Your task to perform on an android device: Clear the cart on ebay. Search for "usb-c to usb-b" on ebay, select the first entry, add it to the cart, then select checkout. Image 0: 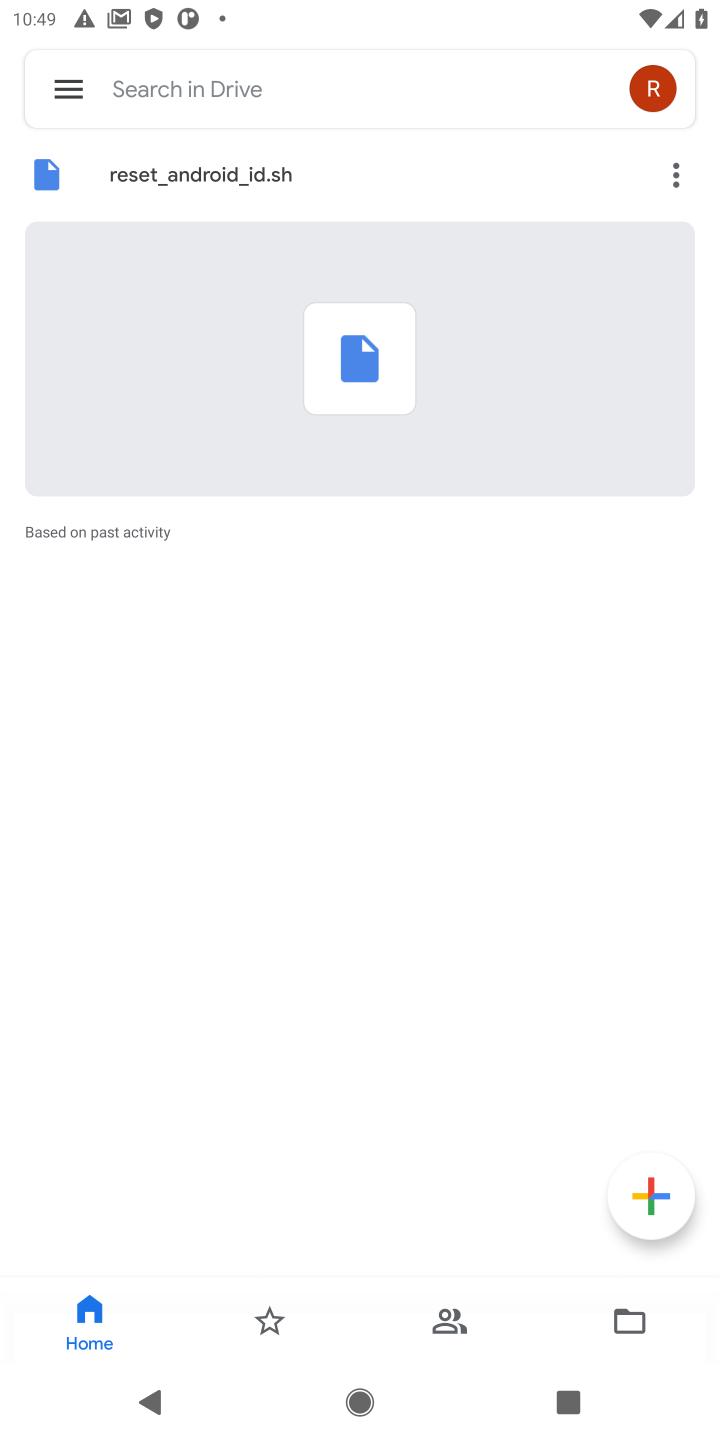
Step 0: press home button
Your task to perform on an android device: Clear the cart on ebay. Search for "usb-c to usb-b" on ebay, select the first entry, add it to the cart, then select checkout. Image 1: 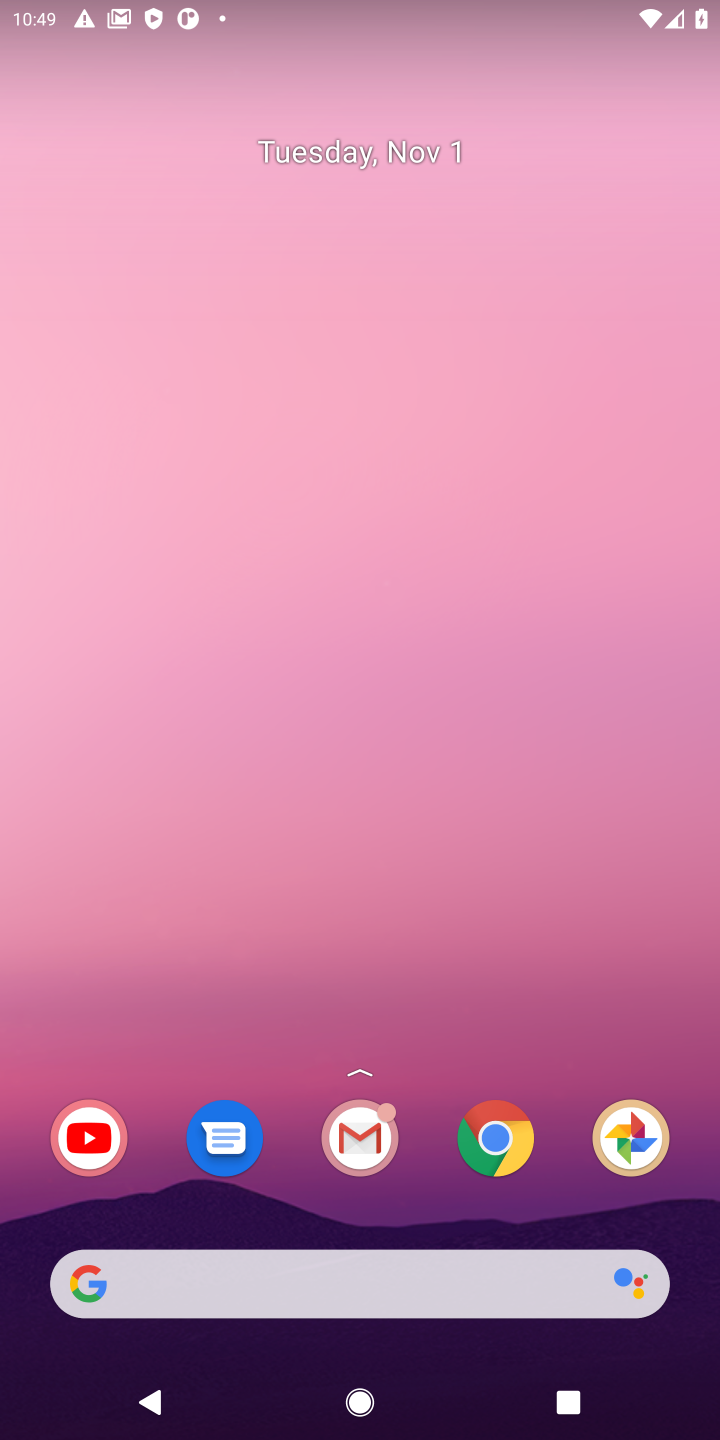
Step 1: click (487, 1131)
Your task to perform on an android device: Clear the cart on ebay. Search for "usb-c to usb-b" on ebay, select the first entry, add it to the cart, then select checkout. Image 2: 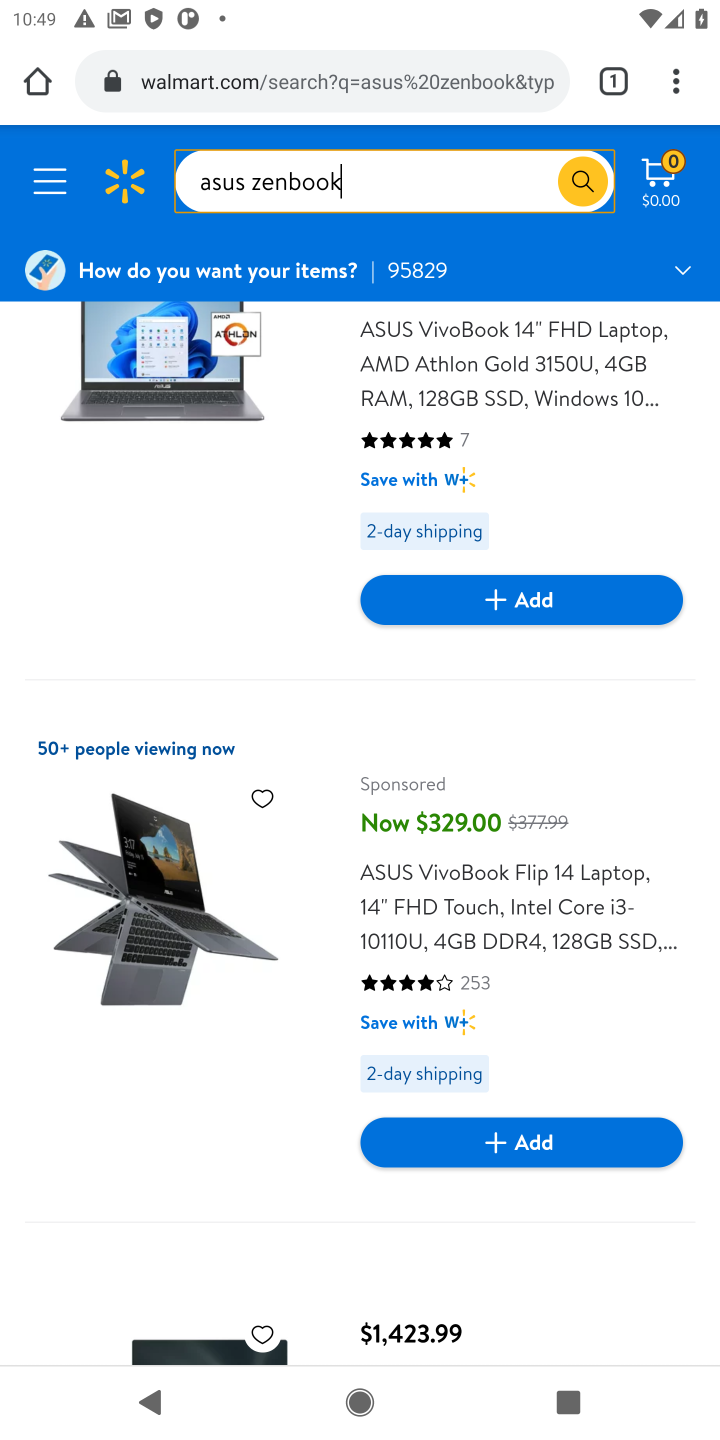
Step 2: click (336, 84)
Your task to perform on an android device: Clear the cart on ebay. Search for "usb-c to usb-b" on ebay, select the first entry, add it to the cart, then select checkout. Image 3: 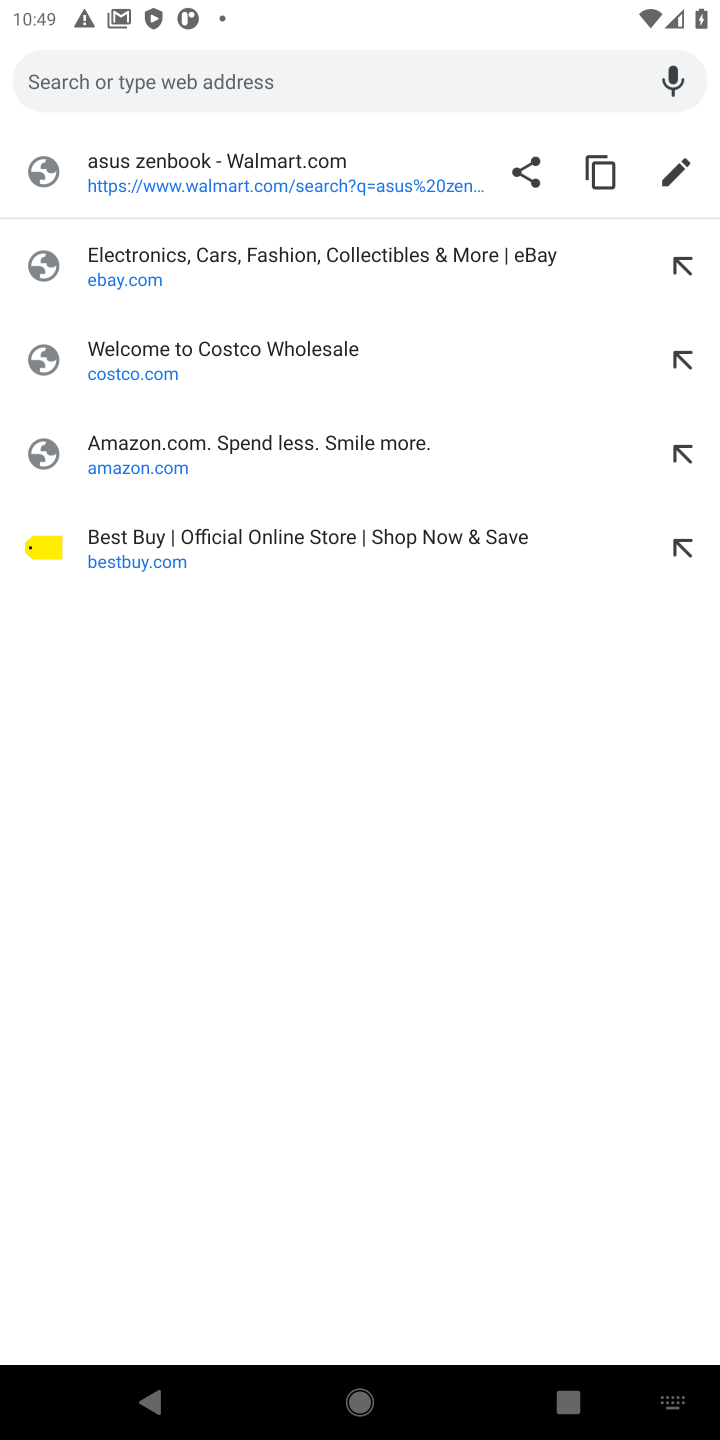
Step 3: click (135, 270)
Your task to perform on an android device: Clear the cart on ebay. Search for "usb-c to usb-b" on ebay, select the first entry, add it to the cart, then select checkout. Image 4: 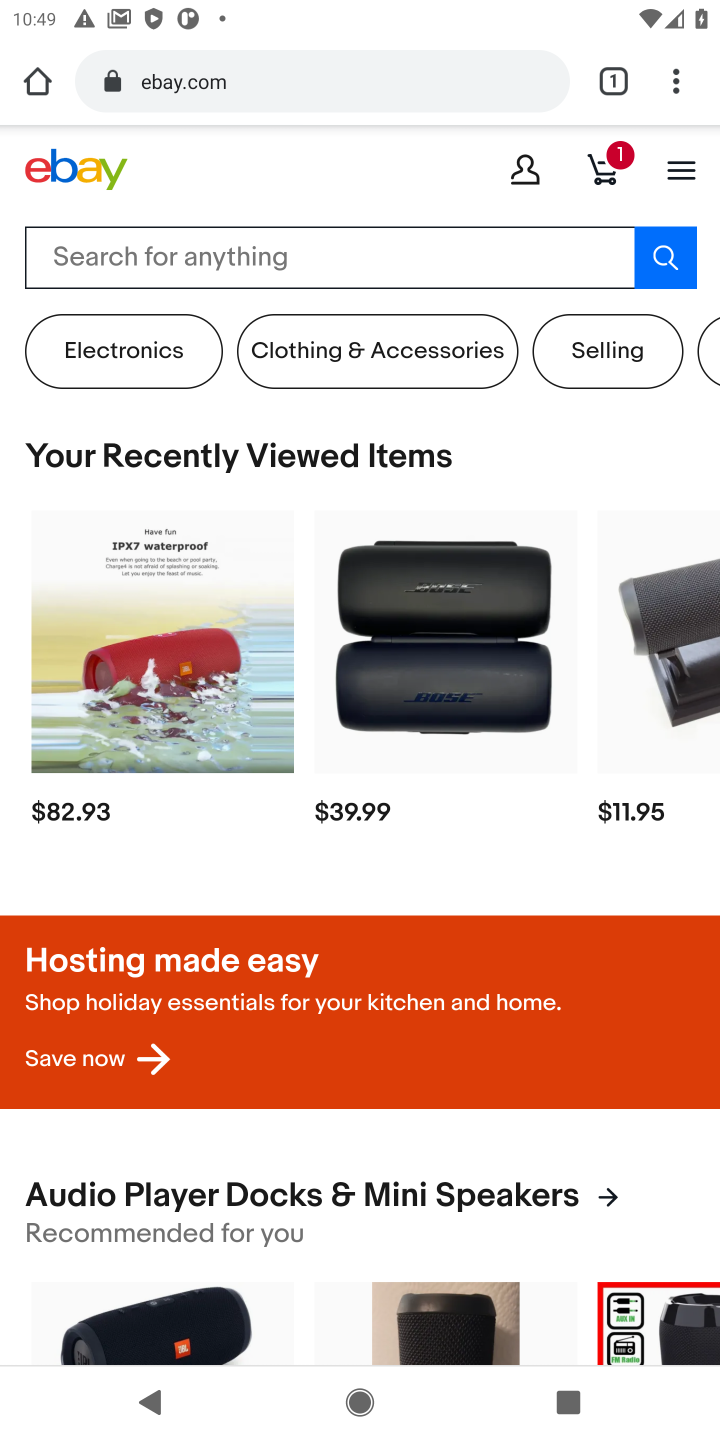
Step 4: click (605, 169)
Your task to perform on an android device: Clear the cart on ebay. Search for "usb-c to usb-b" on ebay, select the first entry, add it to the cart, then select checkout. Image 5: 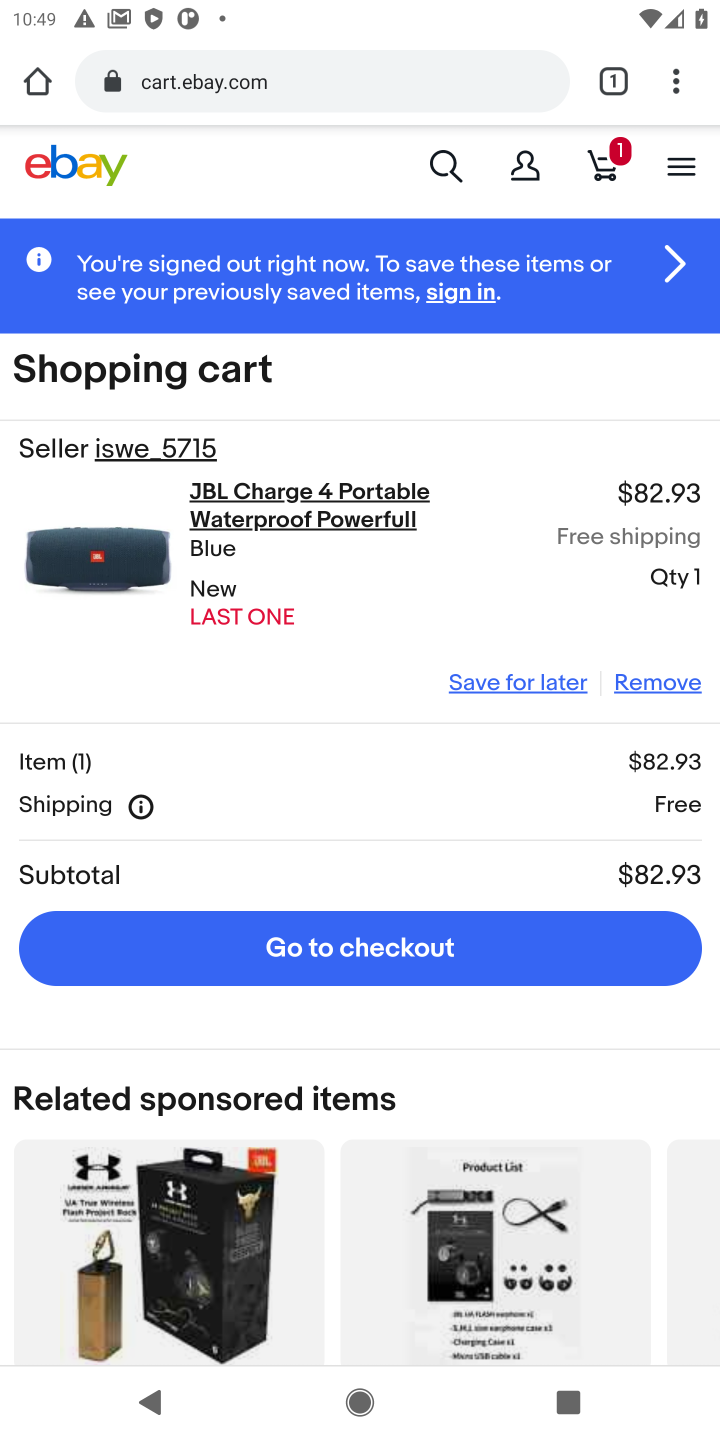
Step 5: click (694, 691)
Your task to perform on an android device: Clear the cart on ebay. Search for "usb-c to usb-b" on ebay, select the first entry, add it to the cart, then select checkout. Image 6: 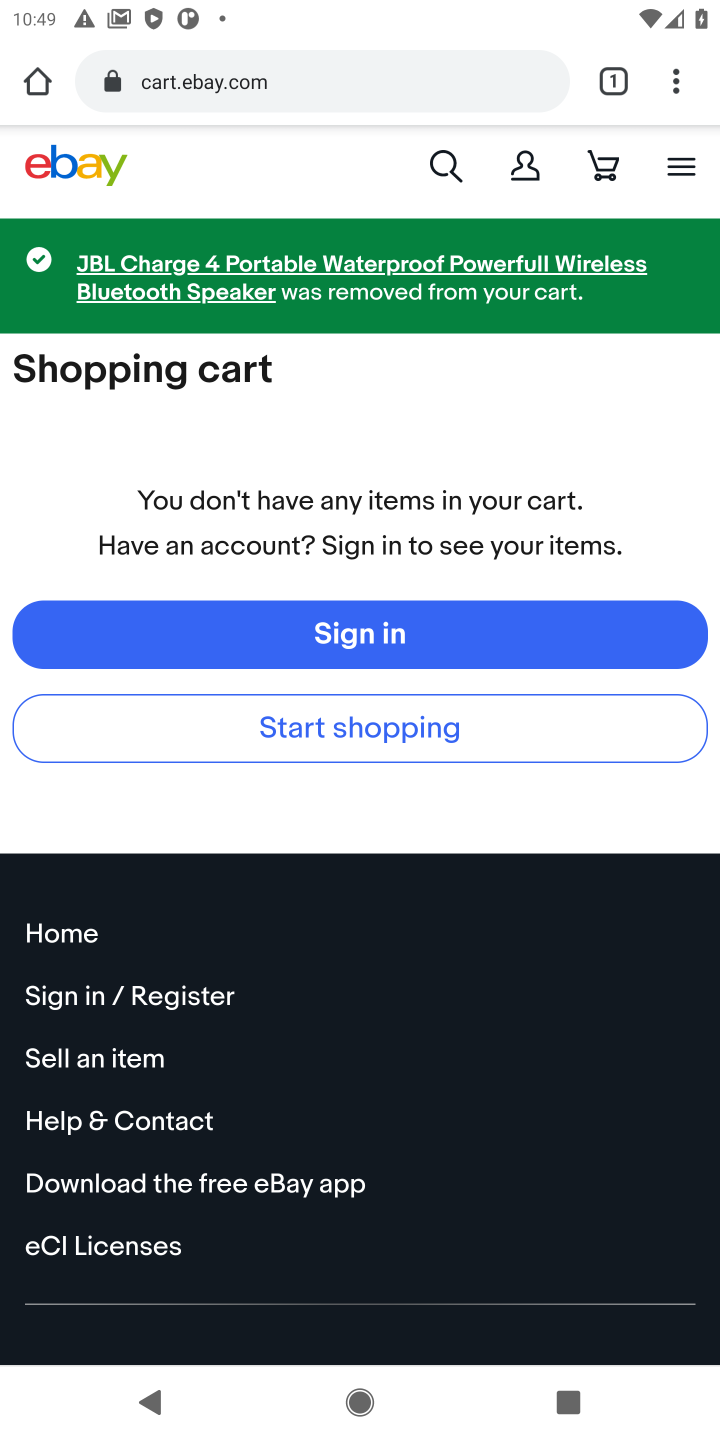
Step 6: click (451, 171)
Your task to perform on an android device: Clear the cart on ebay. Search for "usb-c to usb-b" on ebay, select the first entry, add it to the cart, then select checkout. Image 7: 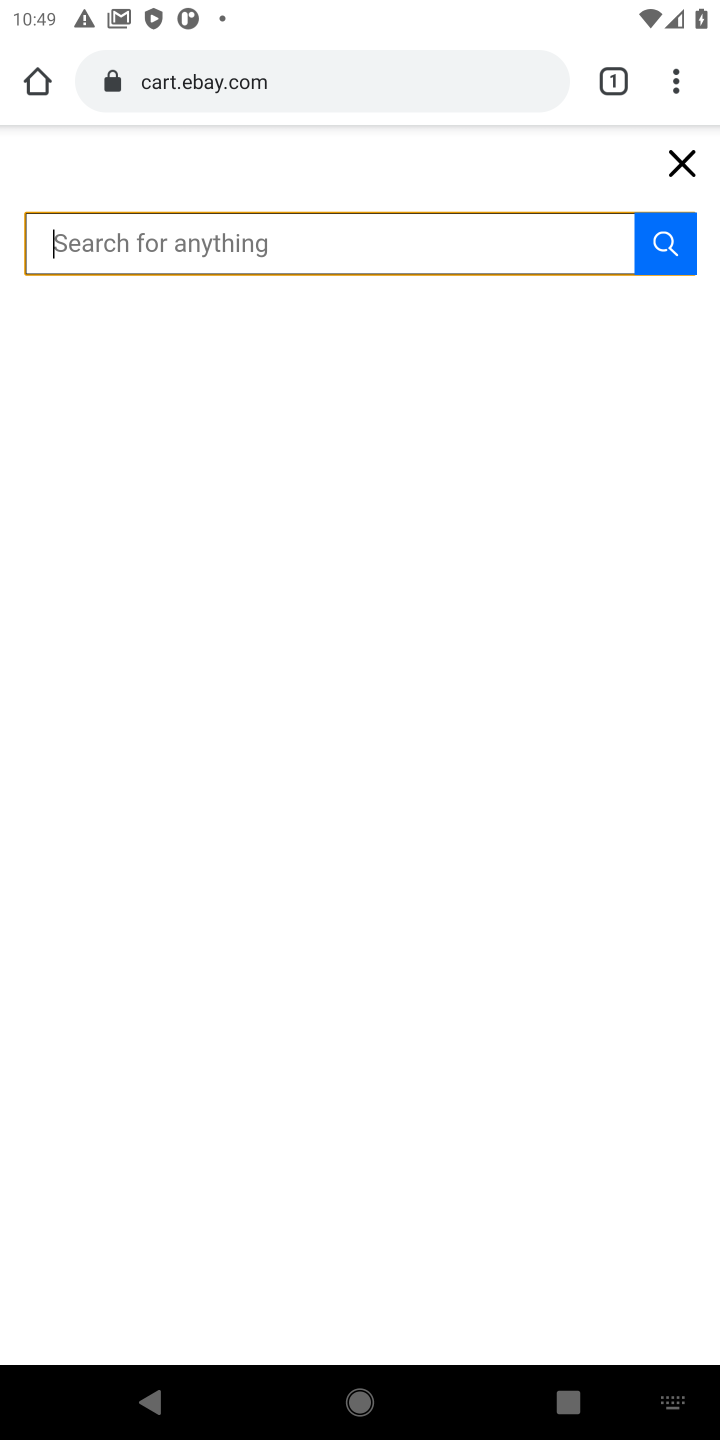
Step 7: type "usb-c to usb-b"
Your task to perform on an android device: Clear the cart on ebay. Search for "usb-c to usb-b" on ebay, select the first entry, add it to the cart, then select checkout. Image 8: 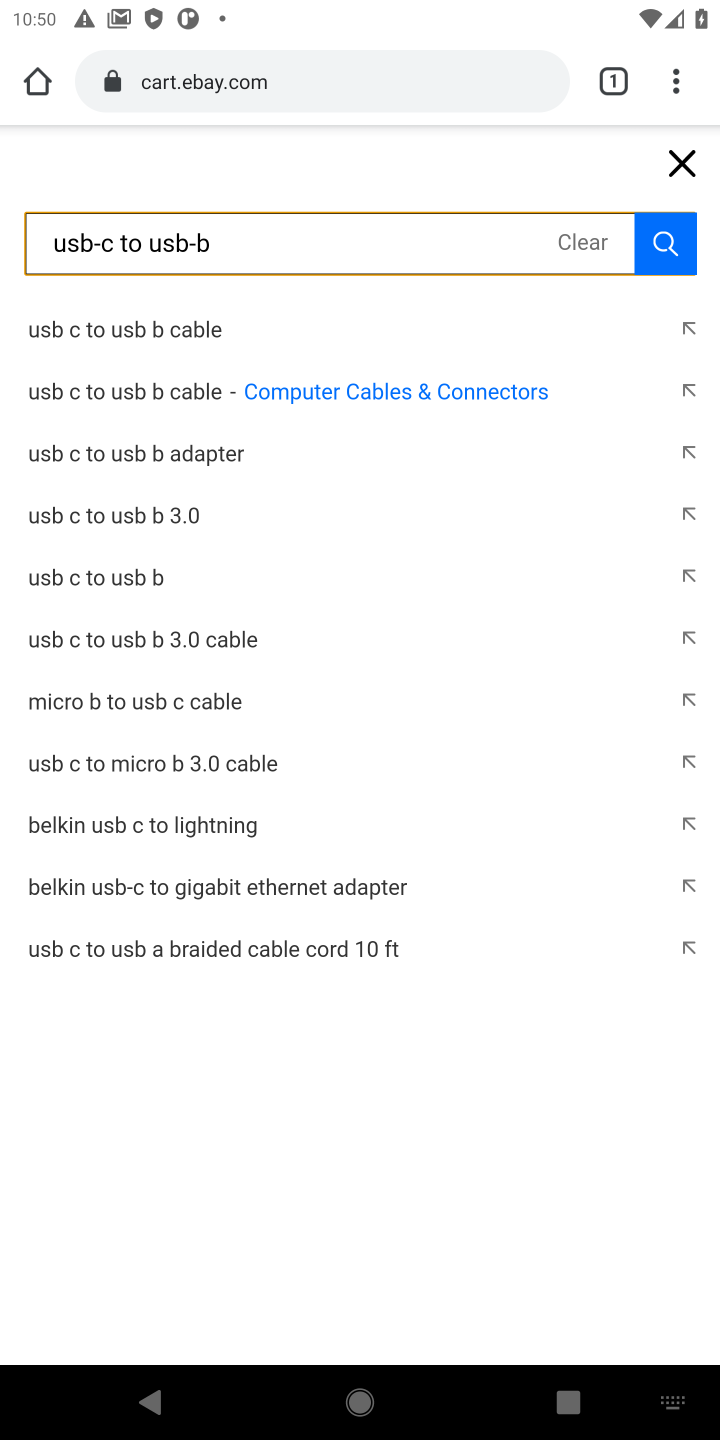
Step 8: click (103, 343)
Your task to perform on an android device: Clear the cart on ebay. Search for "usb-c to usb-b" on ebay, select the first entry, add it to the cart, then select checkout. Image 9: 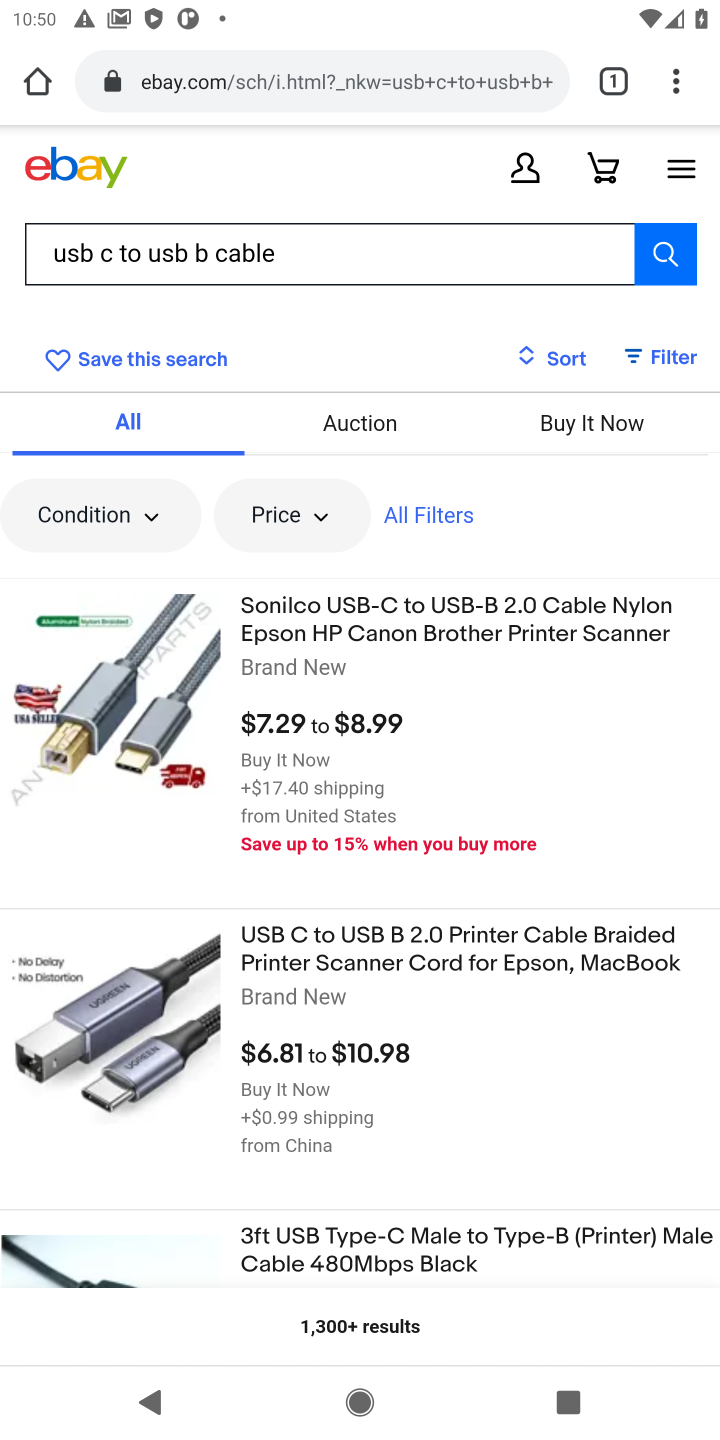
Step 9: click (296, 713)
Your task to perform on an android device: Clear the cart on ebay. Search for "usb-c to usb-b" on ebay, select the first entry, add it to the cart, then select checkout. Image 10: 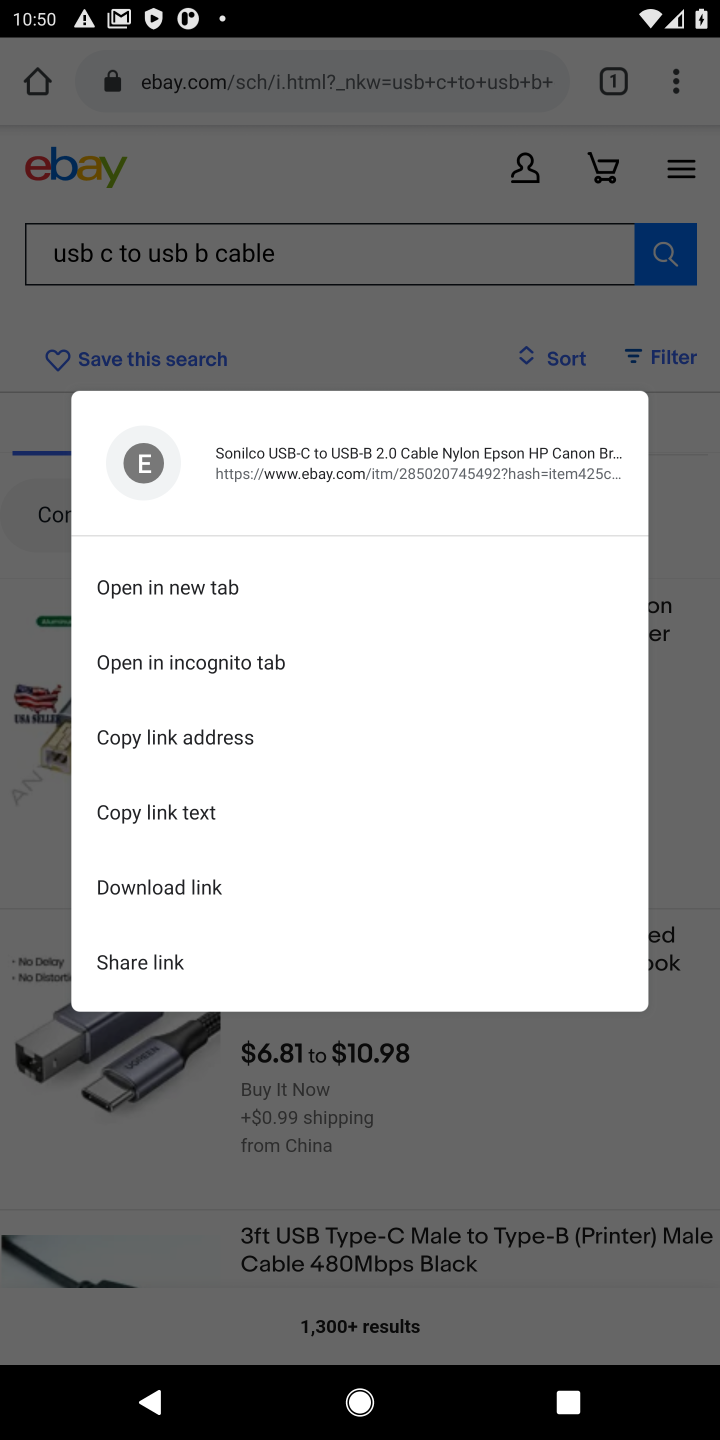
Step 10: click (42, 681)
Your task to perform on an android device: Clear the cart on ebay. Search for "usb-c to usb-b" on ebay, select the first entry, add it to the cart, then select checkout. Image 11: 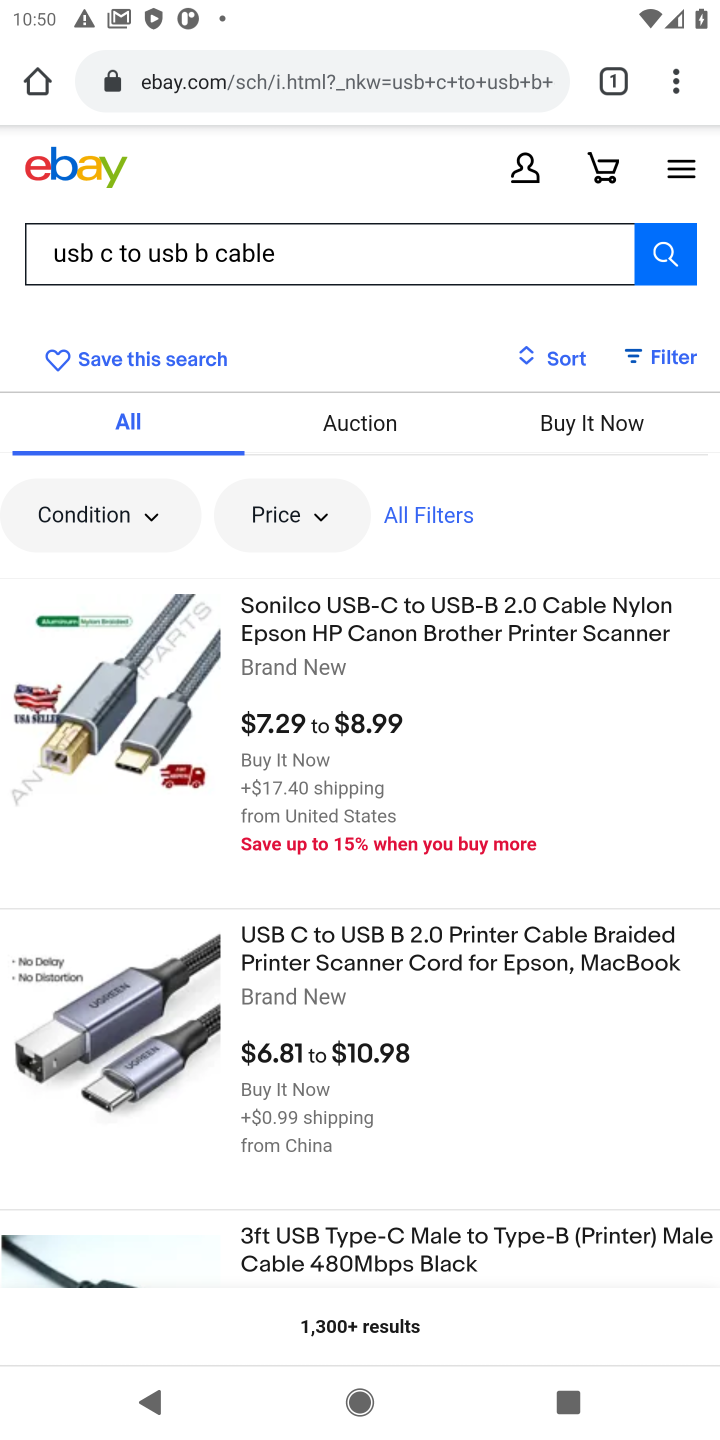
Step 11: click (313, 732)
Your task to perform on an android device: Clear the cart on ebay. Search for "usb-c to usb-b" on ebay, select the first entry, add it to the cart, then select checkout. Image 12: 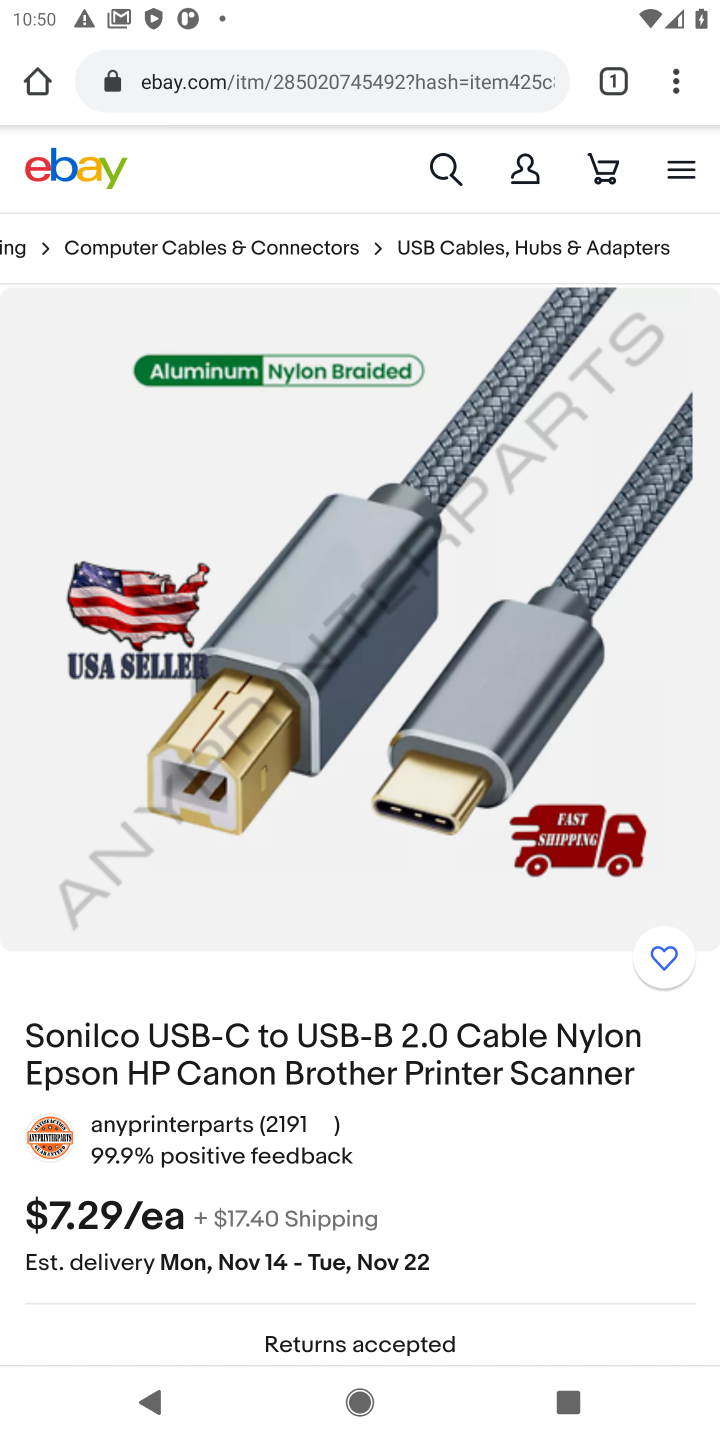
Step 12: drag from (349, 957) to (368, 495)
Your task to perform on an android device: Clear the cart on ebay. Search for "usb-c to usb-b" on ebay, select the first entry, add it to the cart, then select checkout. Image 13: 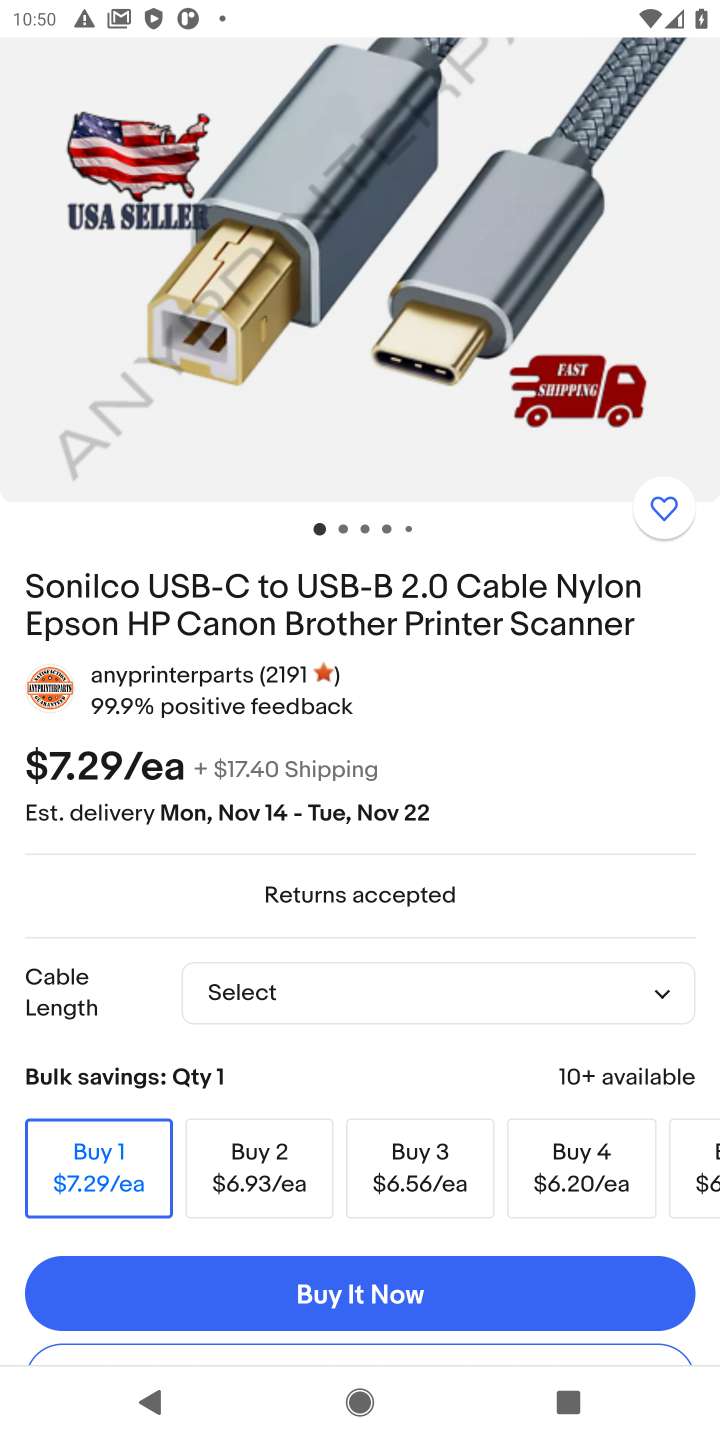
Step 13: drag from (366, 976) to (366, 539)
Your task to perform on an android device: Clear the cart on ebay. Search for "usb-c to usb-b" on ebay, select the first entry, add it to the cart, then select checkout. Image 14: 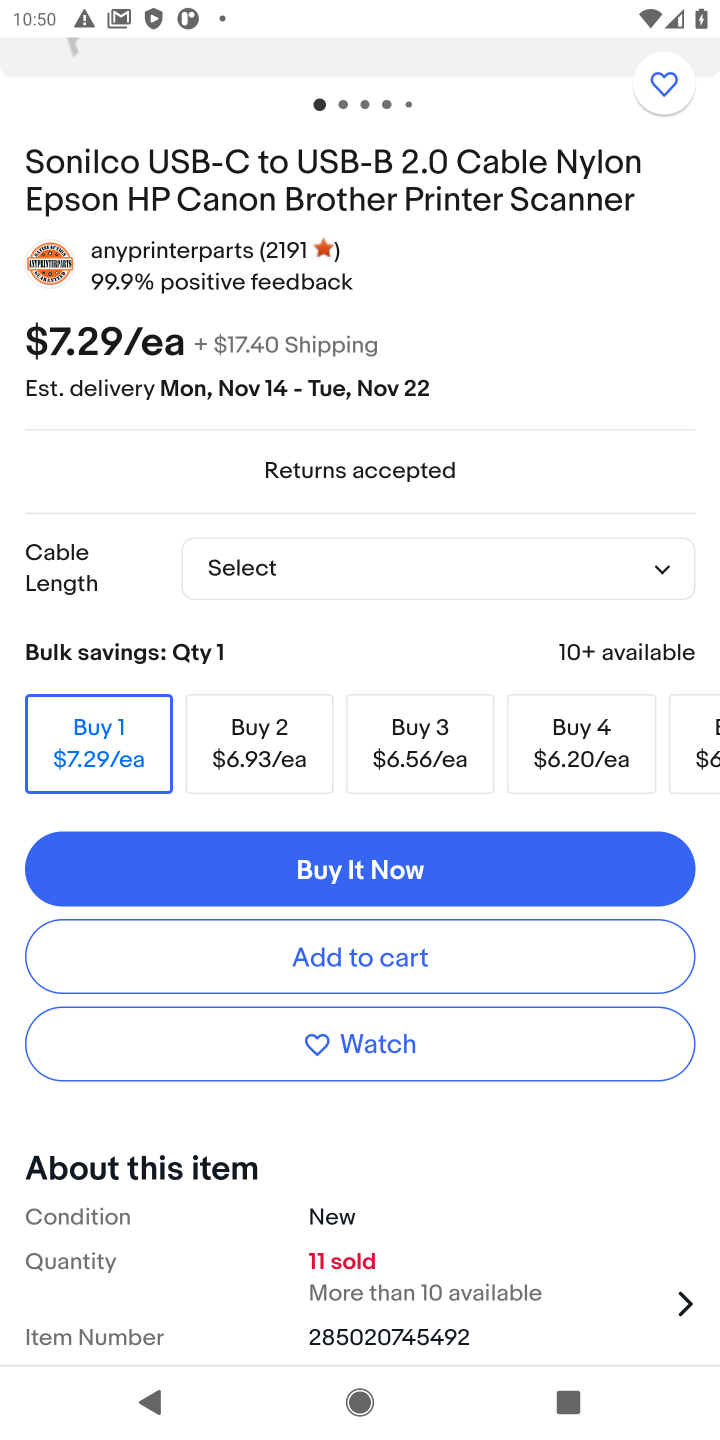
Step 14: click (333, 953)
Your task to perform on an android device: Clear the cart on ebay. Search for "usb-c to usb-b" on ebay, select the first entry, add it to the cart, then select checkout. Image 15: 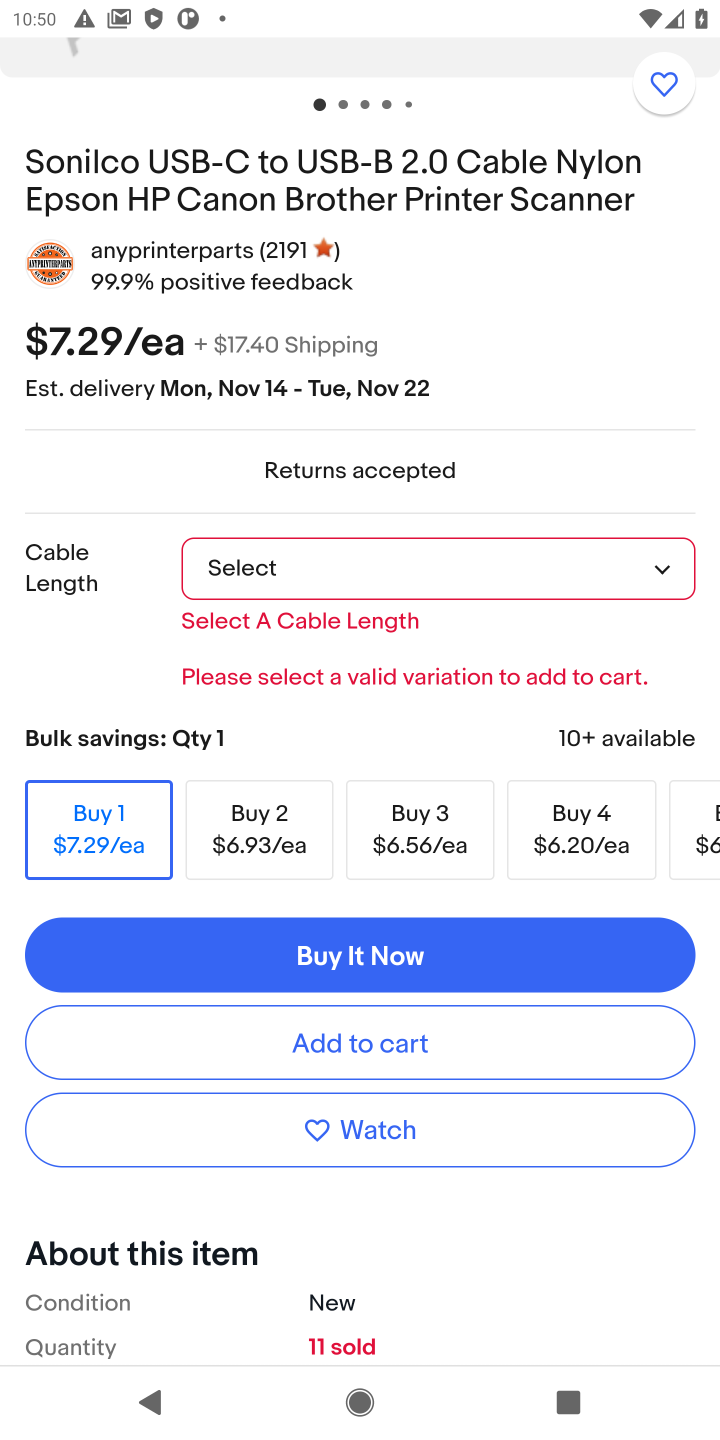
Step 15: click (663, 570)
Your task to perform on an android device: Clear the cart on ebay. Search for "usb-c to usb-b" on ebay, select the first entry, add it to the cart, then select checkout. Image 16: 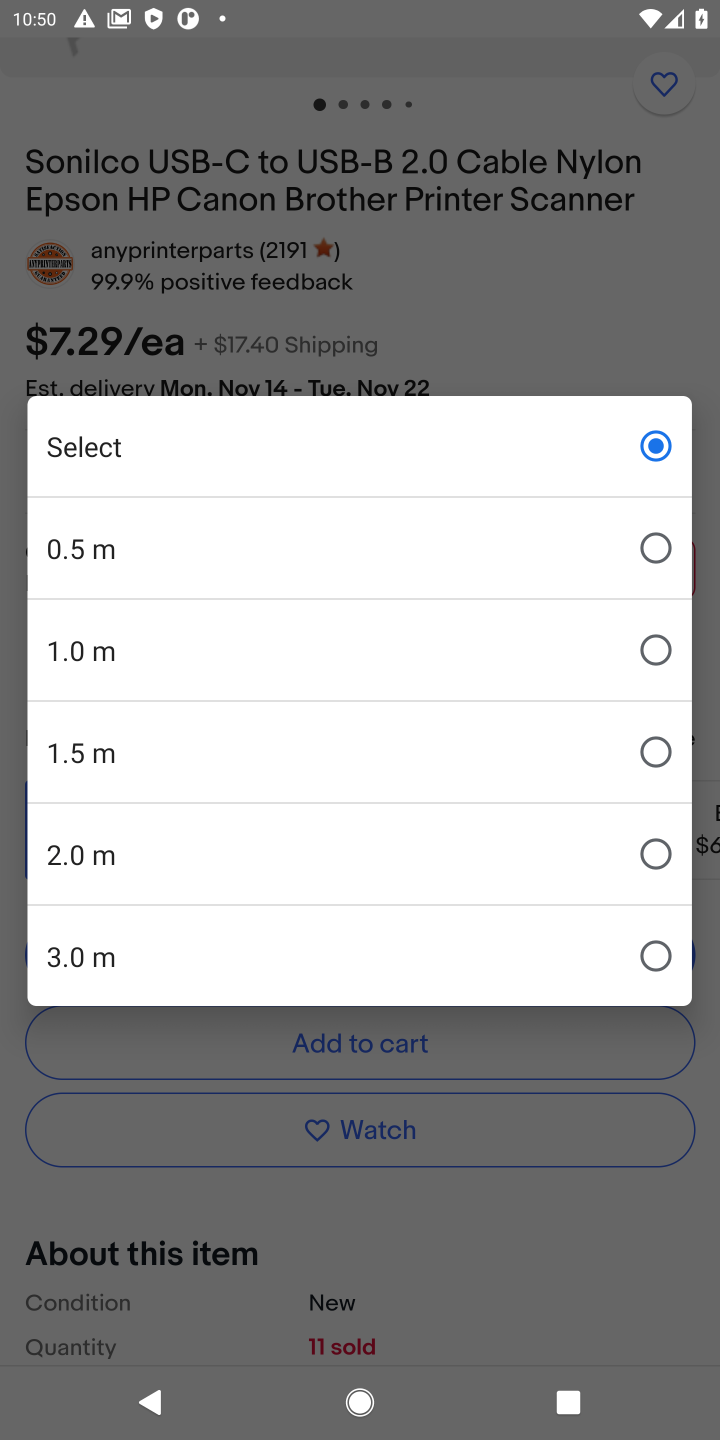
Step 16: click (75, 554)
Your task to perform on an android device: Clear the cart on ebay. Search for "usb-c to usb-b" on ebay, select the first entry, add it to the cart, then select checkout. Image 17: 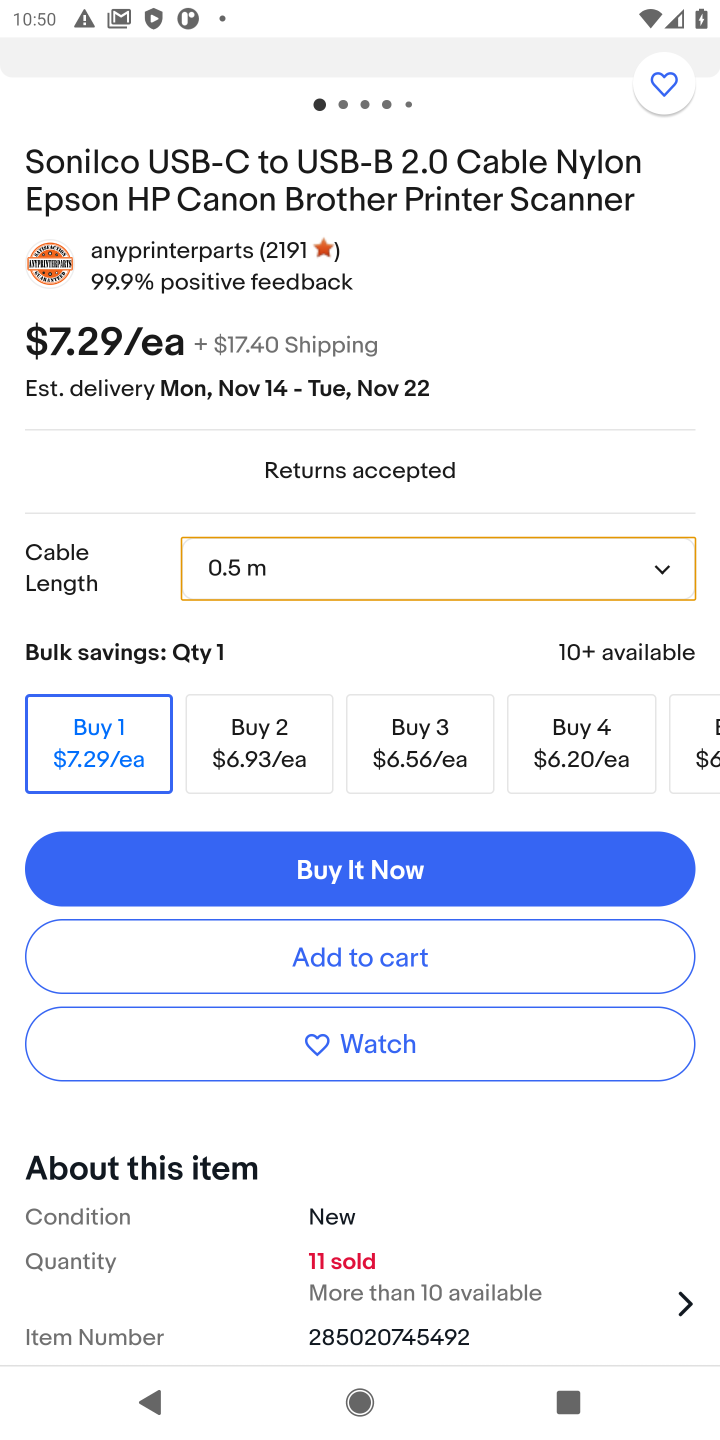
Step 17: click (307, 950)
Your task to perform on an android device: Clear the cart on ebay. Search for "usb-c to usb-b" on ebay, select the first entry, add it to the cart, then select checkout. Image 18: 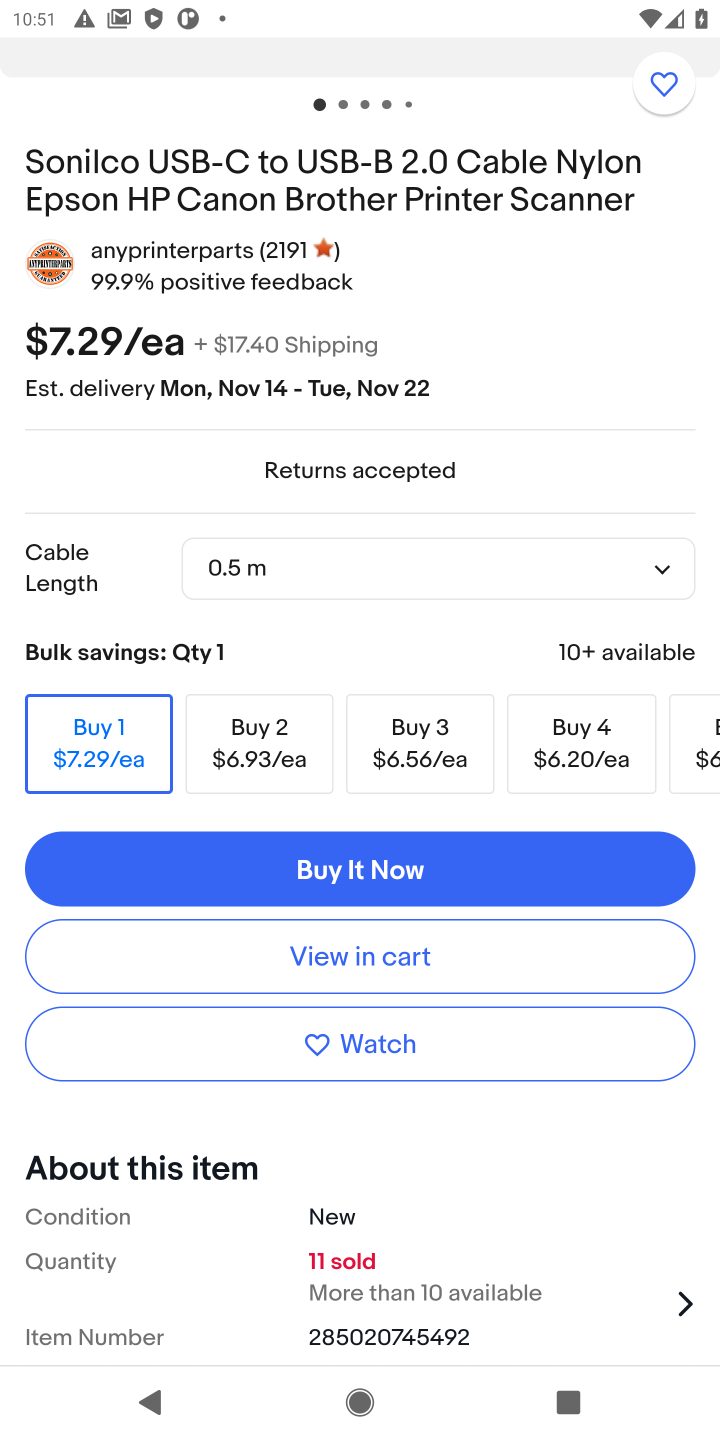
Step 18: click (311, 950)
Your task to perform on an android device: Clear the cart on ebay. Search for "usb-c to usb-b" on ebay, select the first entry, add it to the cart, then select checkout. Image 19: 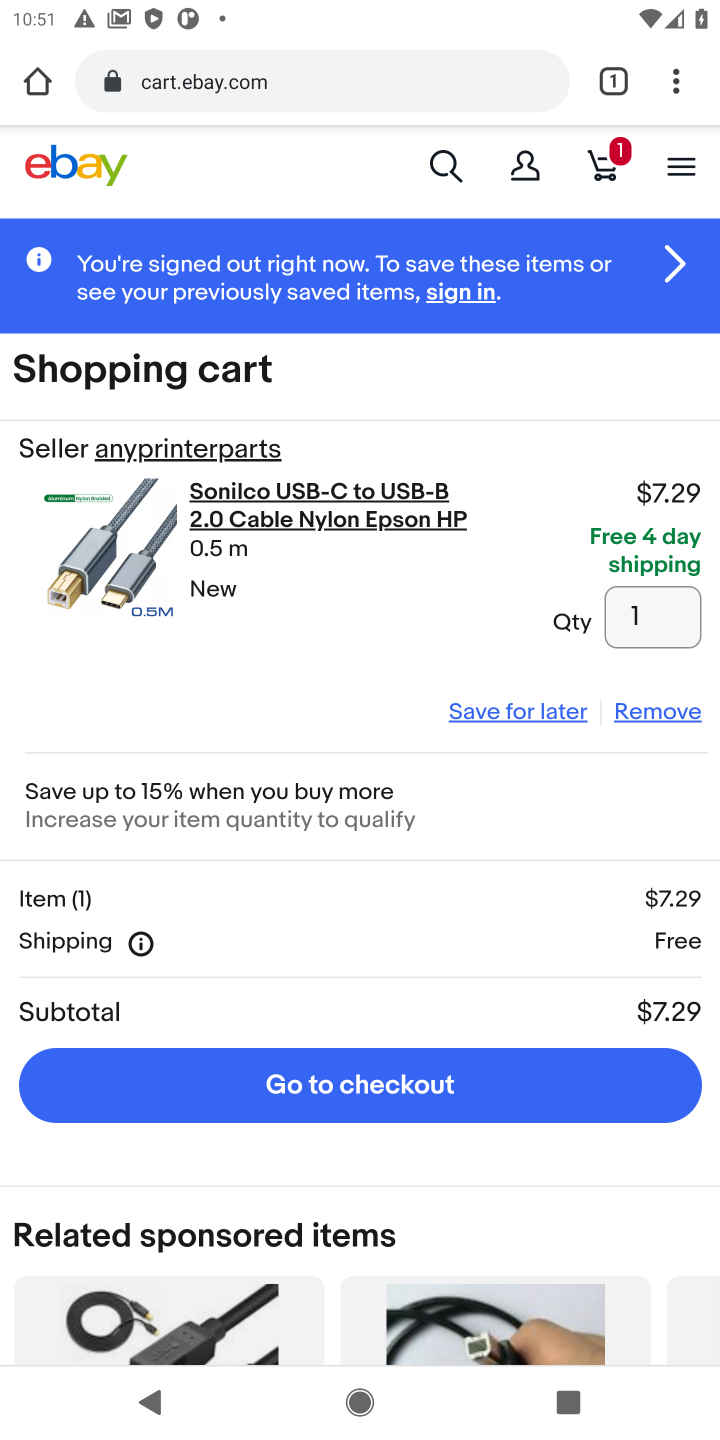
Step 19: click (318, 1076)
Your task to perform on an android device: Clear the cart on ebay. Search for "usb-c to usb-b" on ebay, select the first entry, add it to the cart, then select checkout. Image 20: 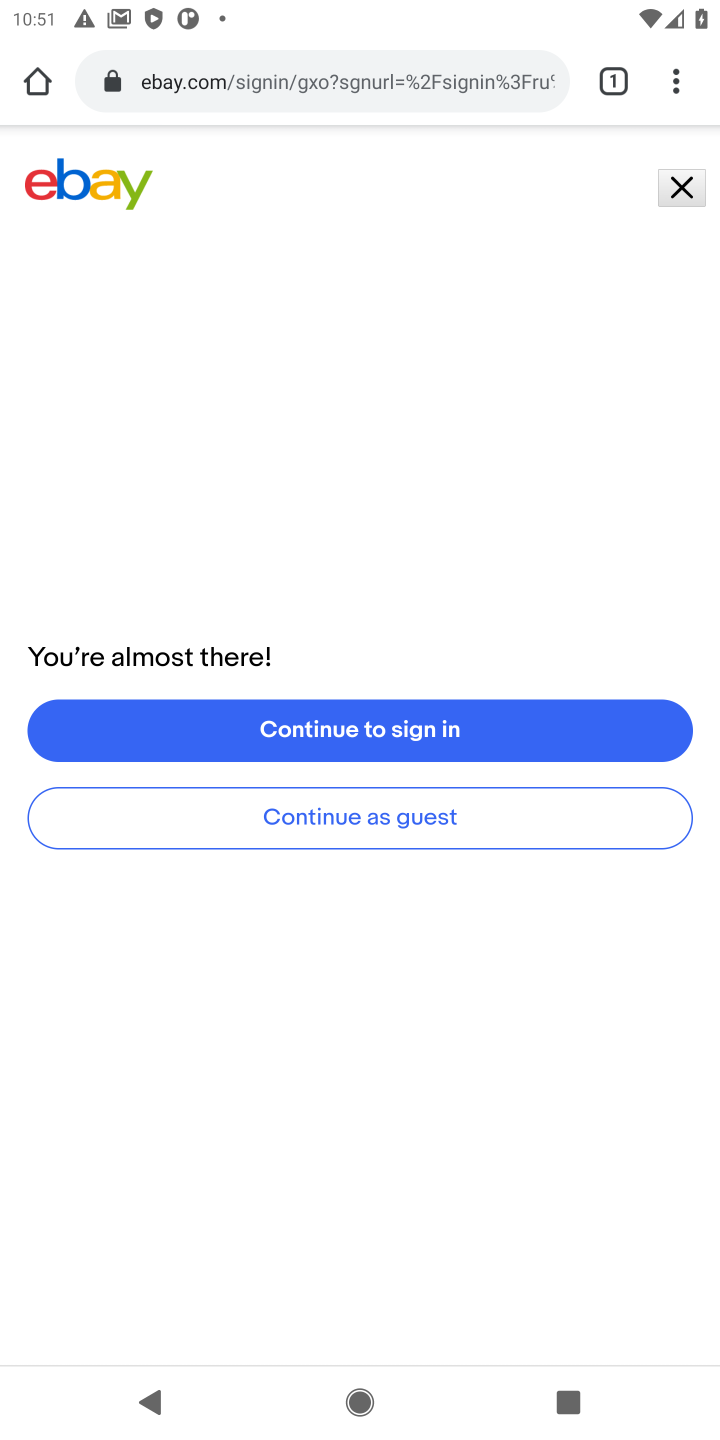
Step 20: task complete